Your task to perform on an android device: Open location settings Image 0: 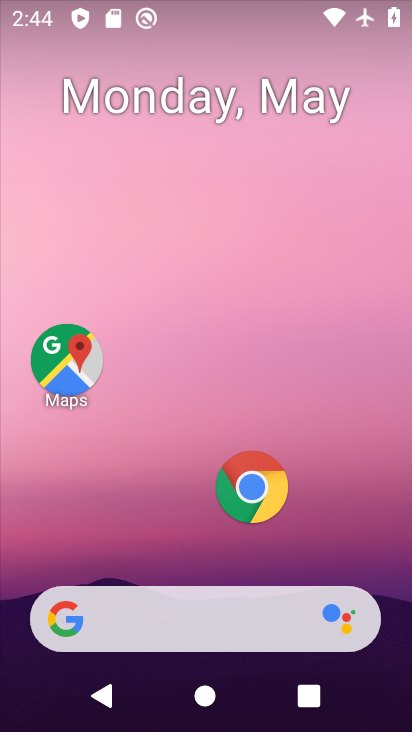
Step 0: drag from (164, 547) to (270, 77)
Your task to perform on an android device: Open location settings Image 1: 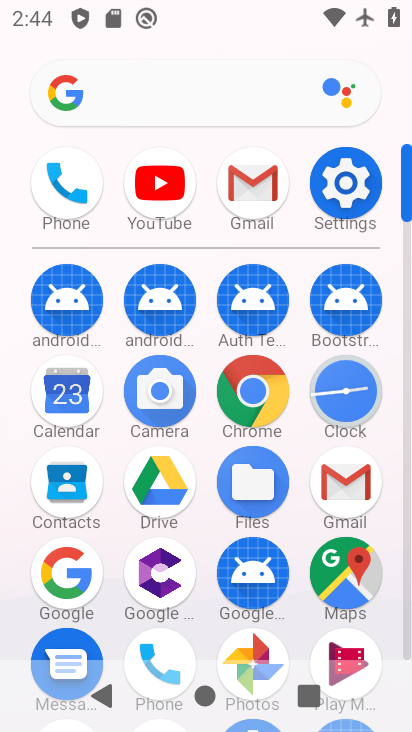
Step 1: click (333, 188)
Your task to perform on an android device: Open location settings Image 2: 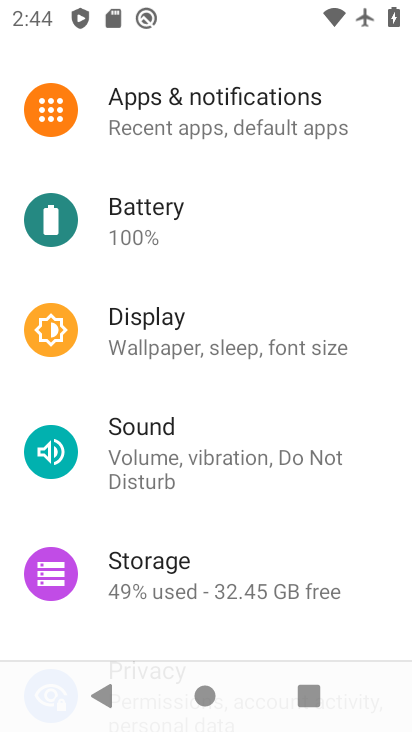
Step 2: drag from (181, 534) to (190, 279)
Your task to perform on an android device: Open location settings Image 3: 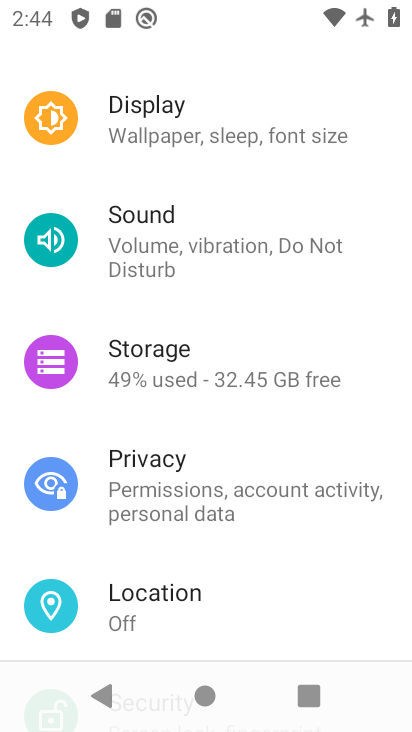
Step 3: click (143, 591)
Your task to perform on an android device: Open location settings Image 4: 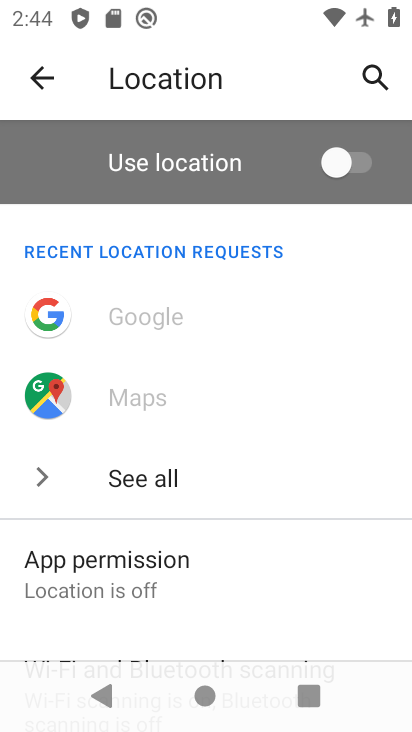
Step 4: task complete